Your task to perform on an android device: find photos in the google photos app Image 0: 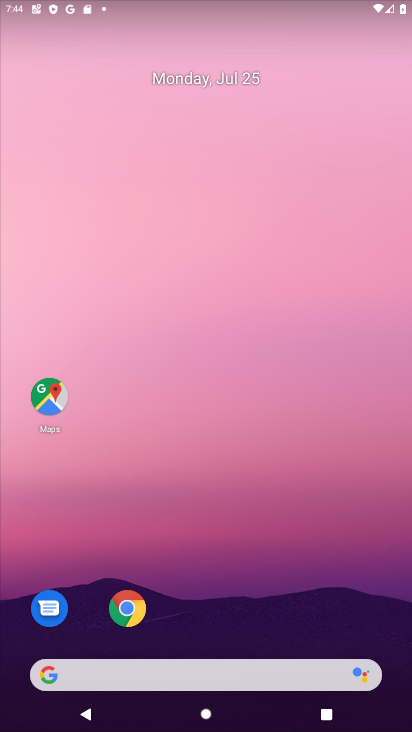
Step 0: drag from (157, 696) to (153, 65)
Your task to perform on an android device: find photos in the google photos app Image 1: 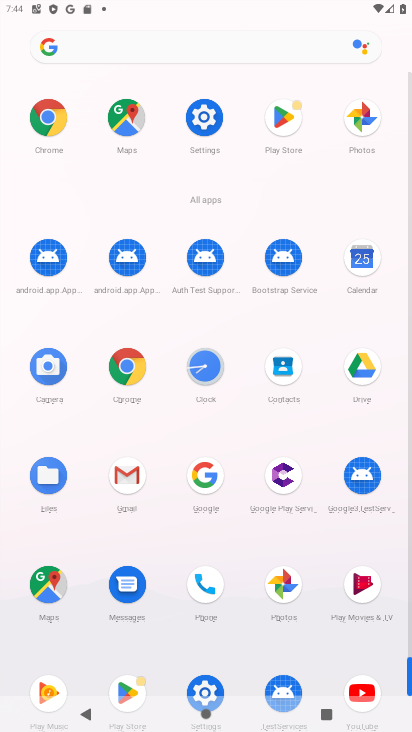
Step 1: drag from (221, 468) to (194, 156)
Your task to perform on an android device: find photos in the google photos app Image 2: 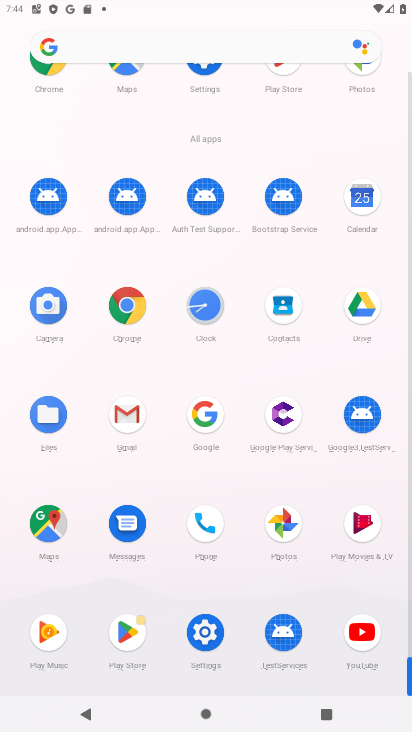
Step 2: click (282, 528)
Your task to perform on an android device: find photos in the google photos app Image 3: 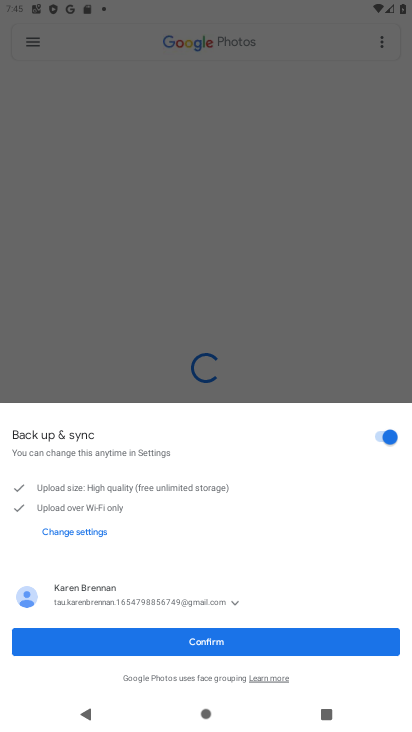
Step 3: click (269, 642)
Your task to perform on an android device: find photos in the google photos app Image 4: 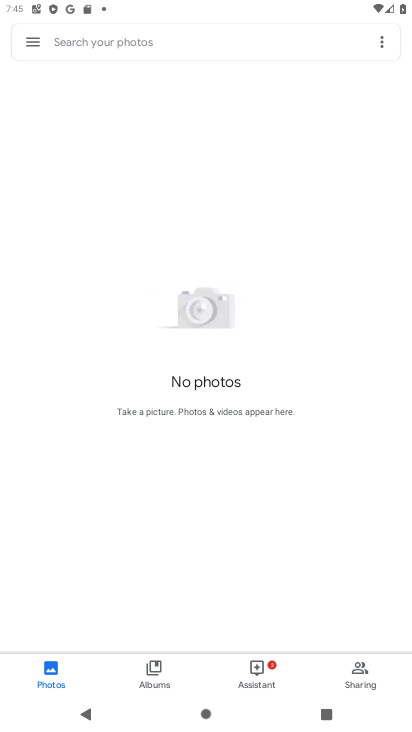
Step 4: task complete